Your task to perform on an android device: Open Wikipedia Image 0: 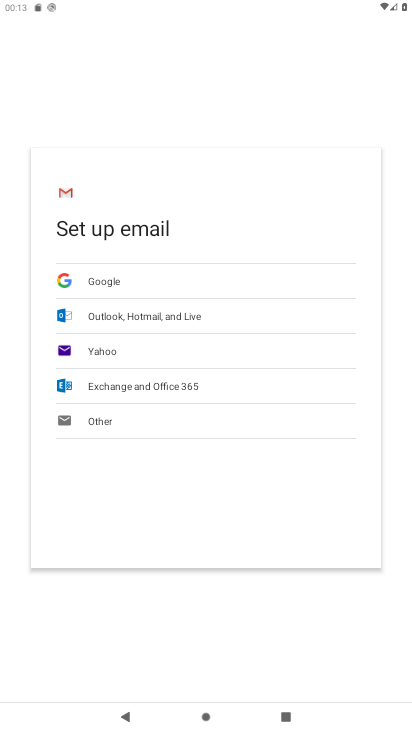
Step 0: press home button
Your task to perform on an android device: Open Wikipedia Image 1: 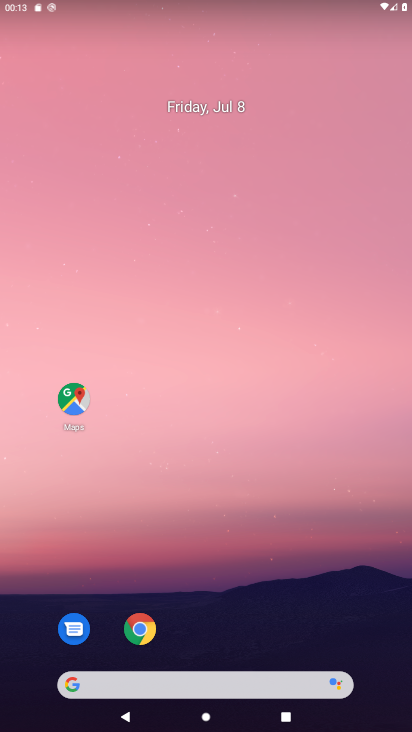
Step 1: click (128, 631)
Your task to perform on an android device: Open Wikipedia Image 2: 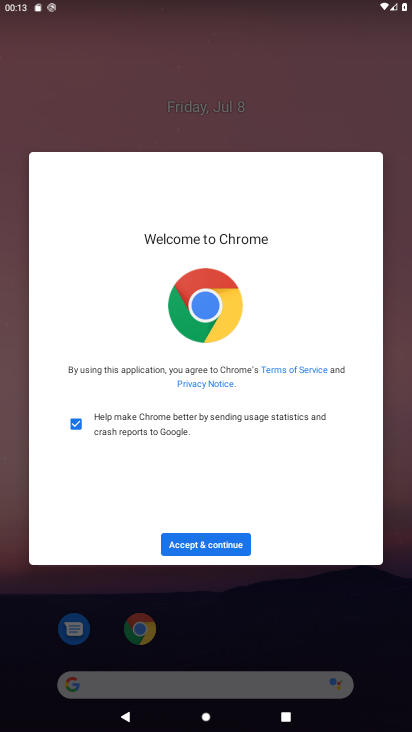
Step 2: click (225, 552)
Your task to perform on an android device: Open Wikipedia Image 3: 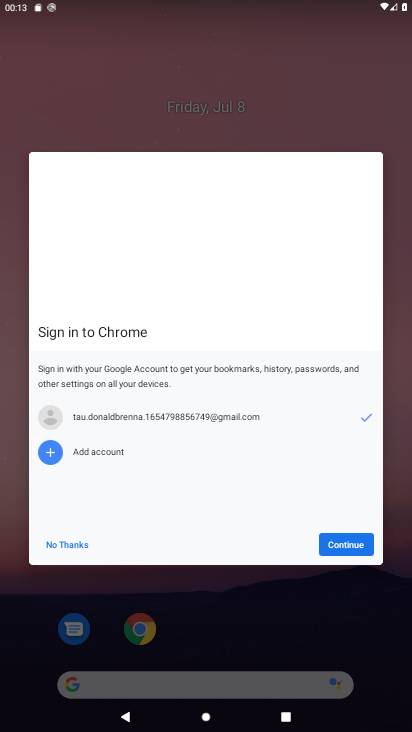
Step 3: click (344, 540)
Your task to perform on an android device: Open Wikipedia Image 4: 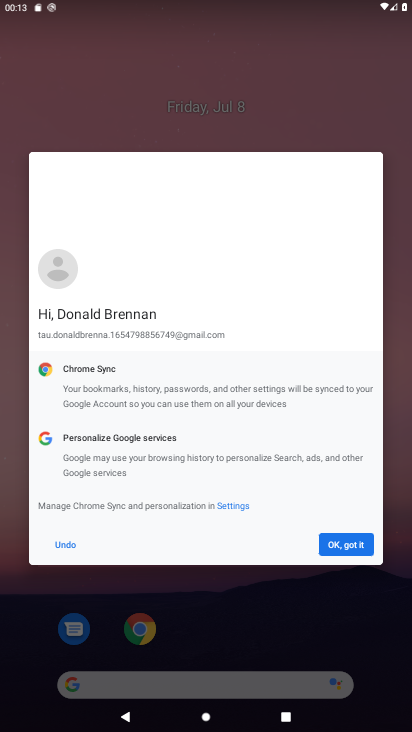
Step 4: click (348, 548)
Your task to perform on an android device: Open Wikipedia Image 5: 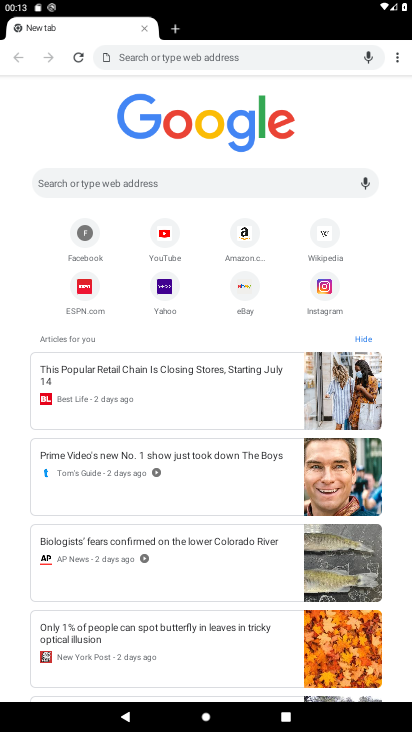
Step 5: click (322, 230)
Your task to perform on an android device: Open Wikipedia Image 6: 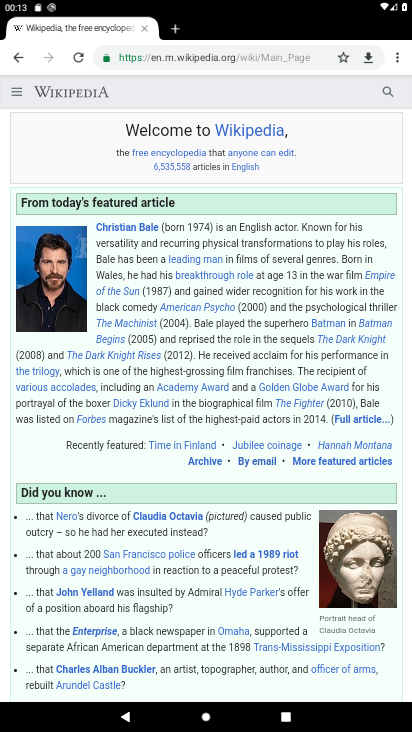
Step 6: task complete